Your task to perform on an android device: Open Google Maps and go to "Timeline" Image 0: 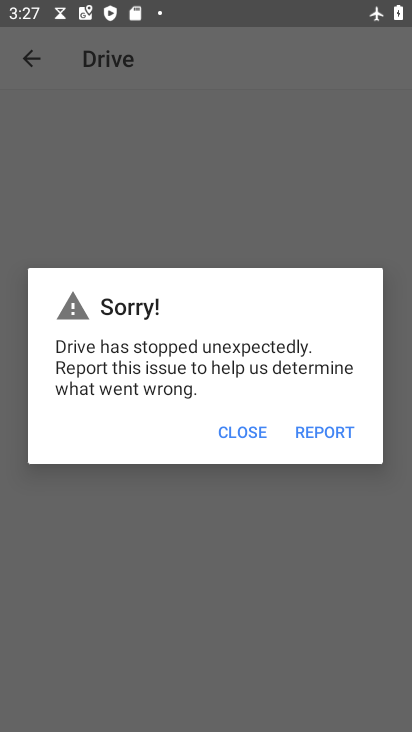
Step 0: press home button
Your task to perform on an android device: Open Google Maps and go to "Timeline" Image 1: 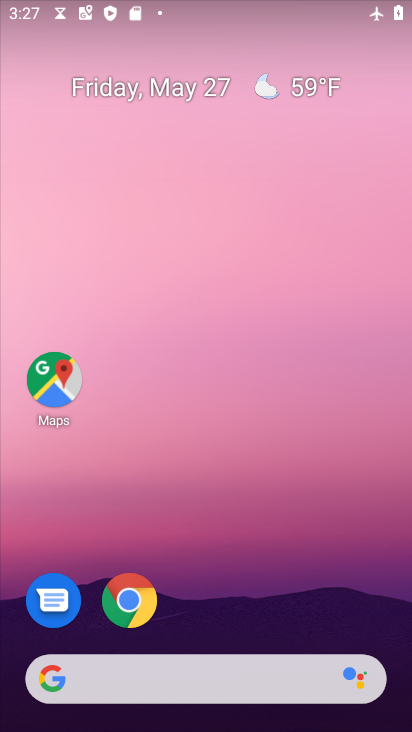
Step 1: click (56, 380)
Your task to perform on an android device: Open Google Maps and go to "Timeline" Image 2: 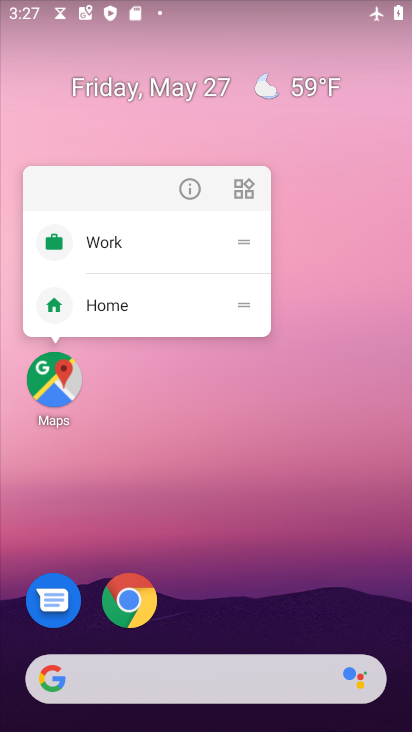
Step 2: click (56, 380)
Your task to perform on an android device: Open Google Maps and go to "Timeline" Image 3: 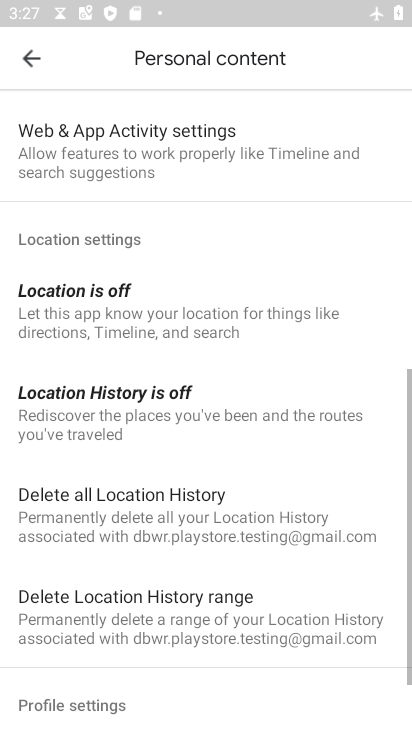
Step 3: click (33, 60)
Your task to perform on an android device: Open Google Maps and go to "Timeline" Image 4: 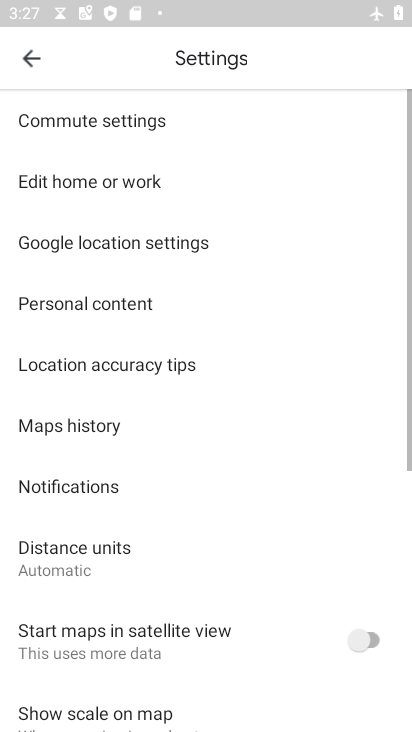
Step 4: click (33, 60)
Your task to perform on an android device: Open Google Maps and go to "Timeline" Image 5: 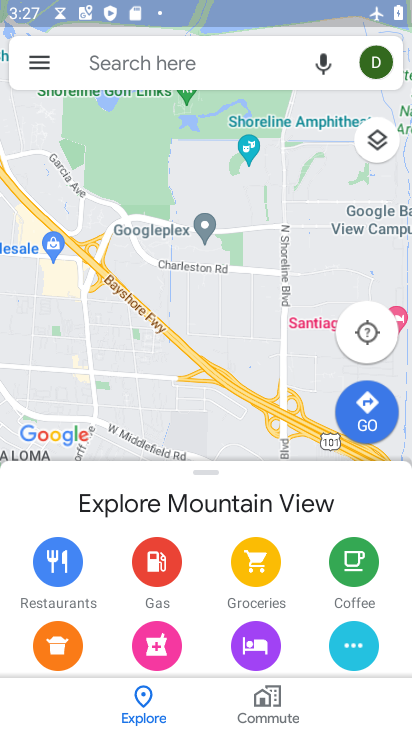
Step 5: click (36, 62)
Your task to perform on an android device: Open Google Maps and go to "Timeline" Image 6: 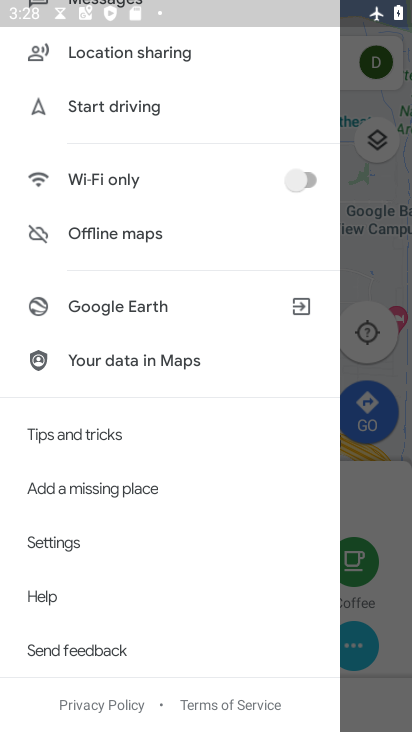
Step 6: drag from (174, 126) to (141, 254)
Your task to perform on an android device: Open Google Maps and go to "Timeline" Image 7: 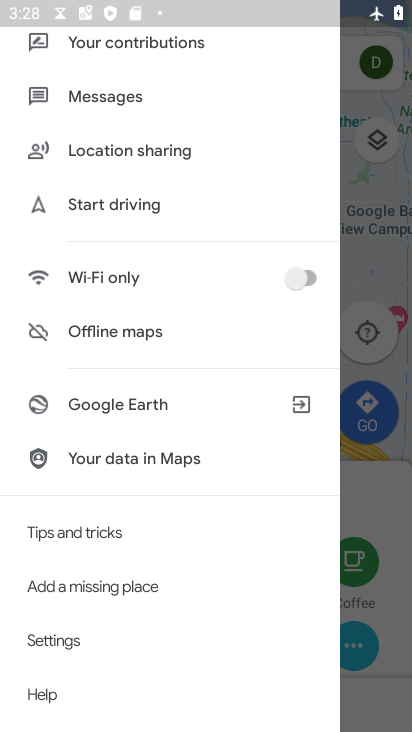
Step 7: drag from (139, 122) to (130, 277)
Your task to perform on an android device: Open Google Maps and go to "Timeline" Image 8: 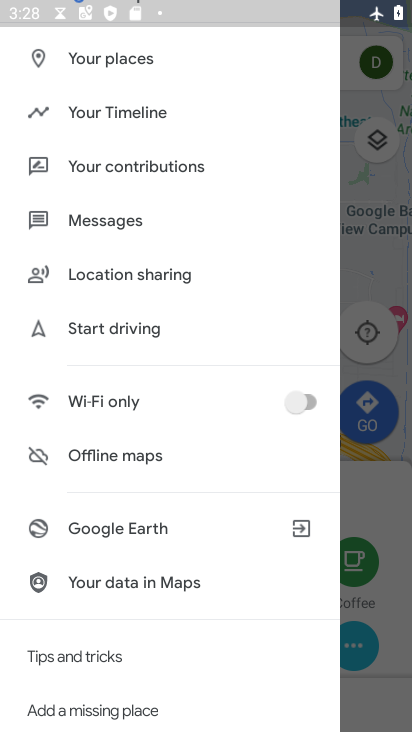
Step 8: click (120, 121)
Your task to perform on an android device: Open Google Maps and go to "Timeline" Image 9: 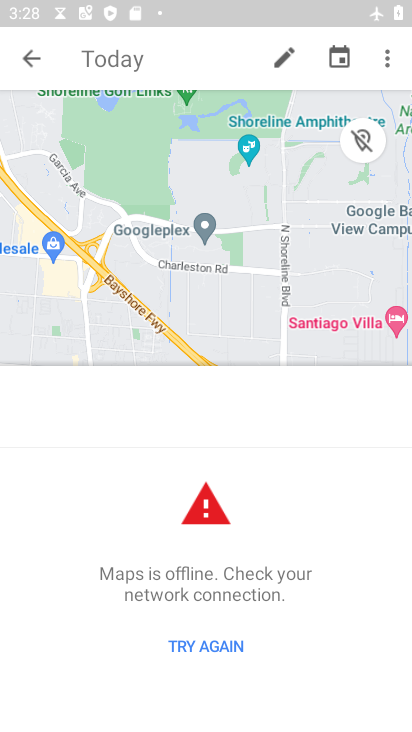
Step 9: task complete